Your task to perform on an android device: turn off smart reply in the gmail app Image 0: 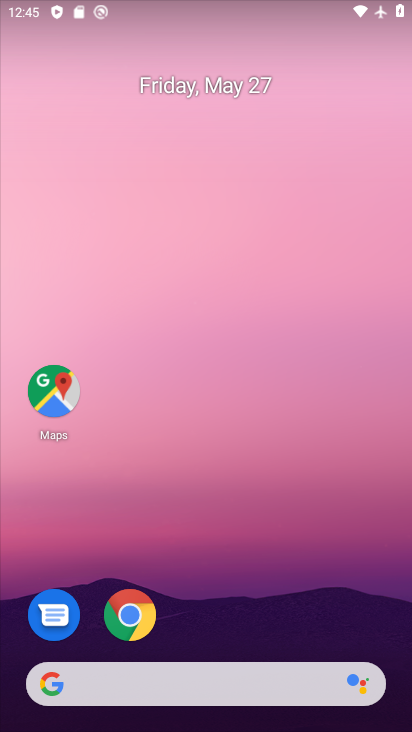
Step 0: press home button
Your task to perform on an android device: turn off smart reply in the gmail app Image 1: 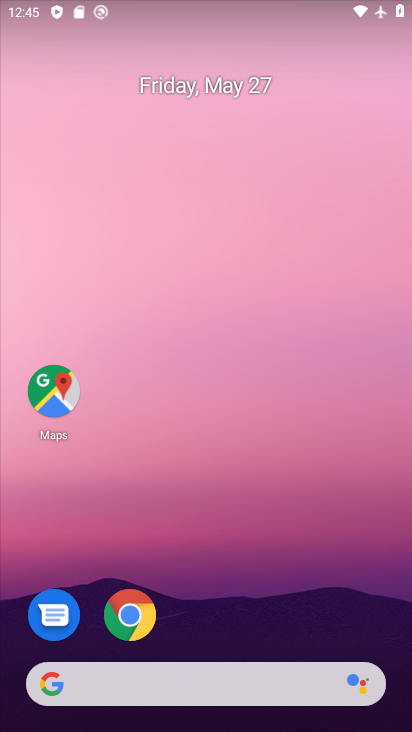
Step 1: press home button
Your task to perform on an android device: turn off smart reply in the gmail app Image 2: 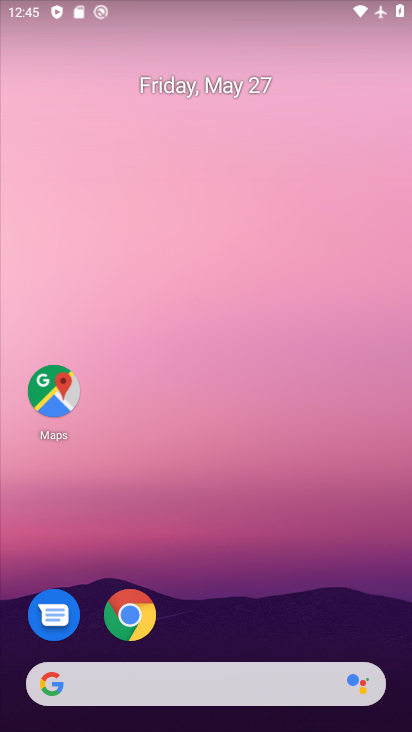
Step 2: drag from (271, 622) to (311, 216)
Your task to perform on an android device: turn off smart reply in the gmail app Image 3: 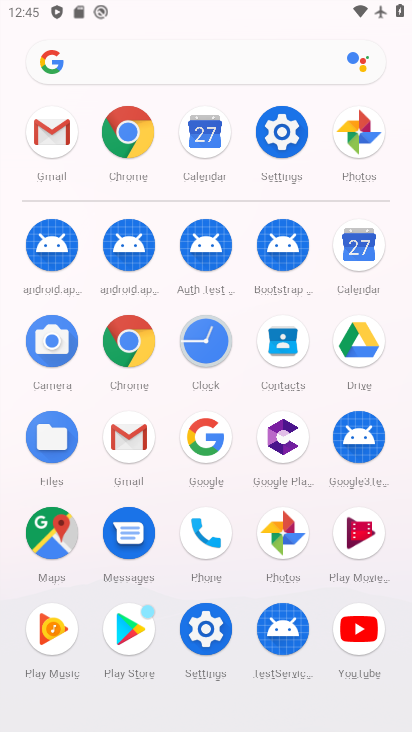
Step 3: click (49, 149)
Your task to perform on an android device: turn off smart reply in the gmail app Image 4: 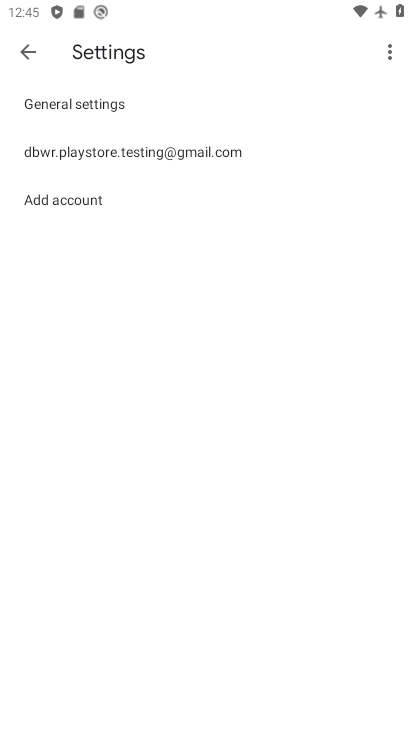
Step 4: click (85, 151)
Your task to perform on an android device: turn off smart reply in the gmail app Image 5: 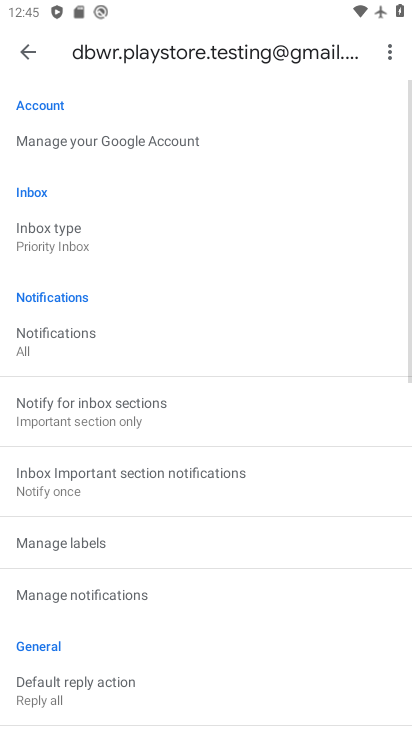
Step 5: drag from (320, 647) to (350, 144)
Your task to perform on an android device: turn off smart reply in the gmail app Image 6: 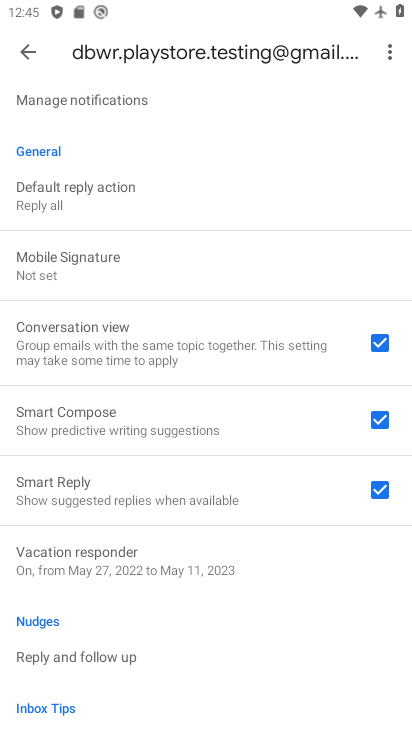
Step 6: click (385, 489)
Your task to perform on an android device: turn off smart reply in the gmail app Image 7: 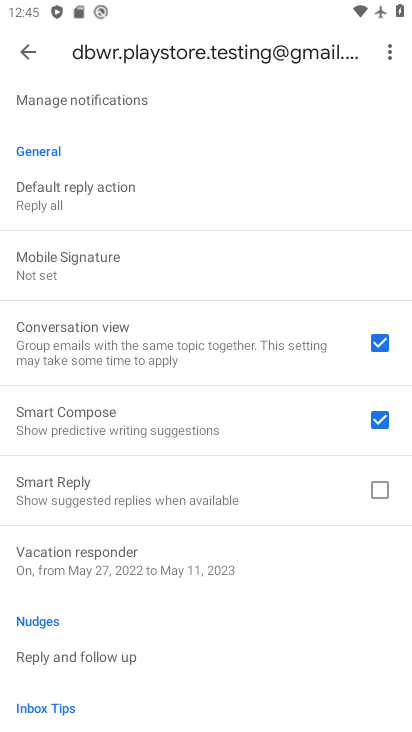
Step 7: task complete